Your task to perform on an android device: turn off location Image 0: 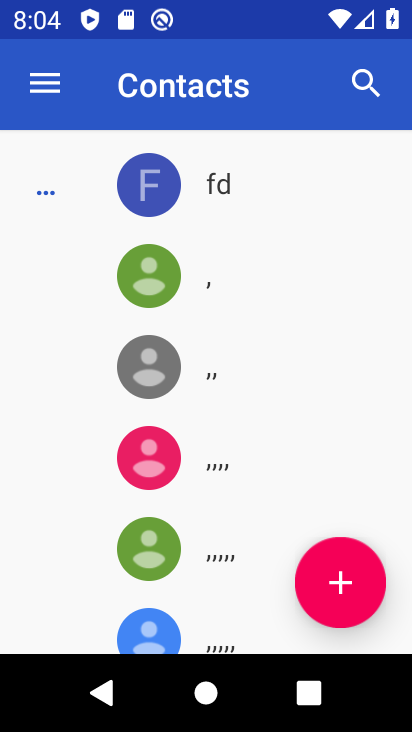
Step 0: press home button
Your task to perform on an android device: turn off location Image 1: 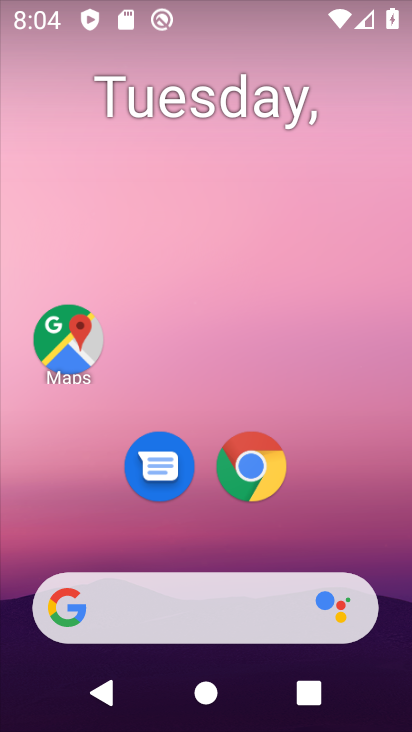
Step 1: drag from (216, 508) to (295, 1)
Your task to perform on an android device: turn off location Image 2: 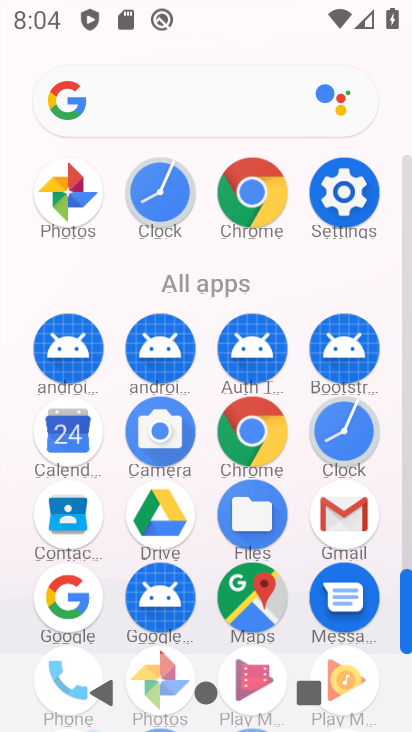
Step 2: click (348, 202)
Your task to perform on an android device: turn off location Image 3: 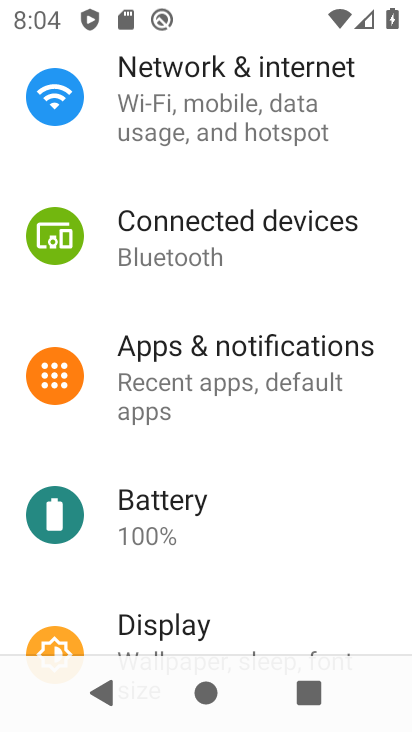
Step 3: drag from (213, 531) to (264, 220)
Your task to perform on an android device: turn off location Image 4: 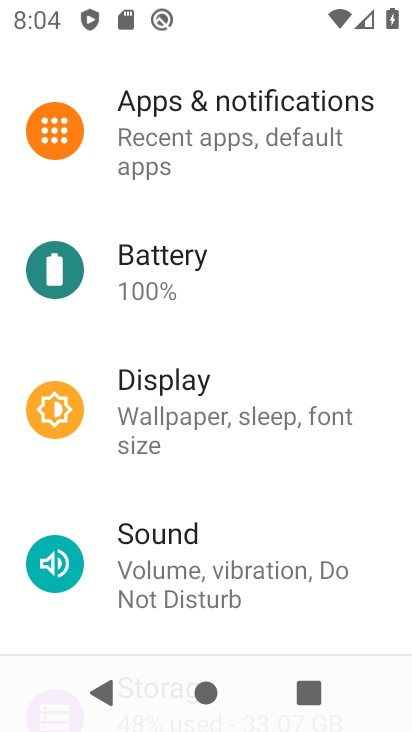
Step 4: drag from (213, 524) to (259, 220)
Your task to perform on an android device: turn off location Image 5: 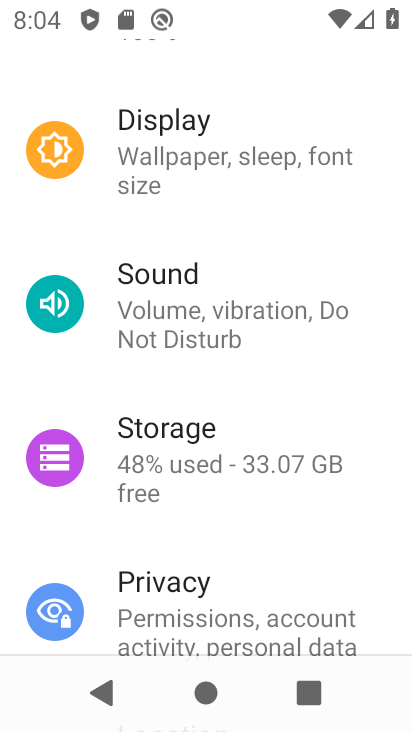
Step 5: drag from (177, 545) to (248, 145)
Your task to perform on an android device: turn off location Image 6: 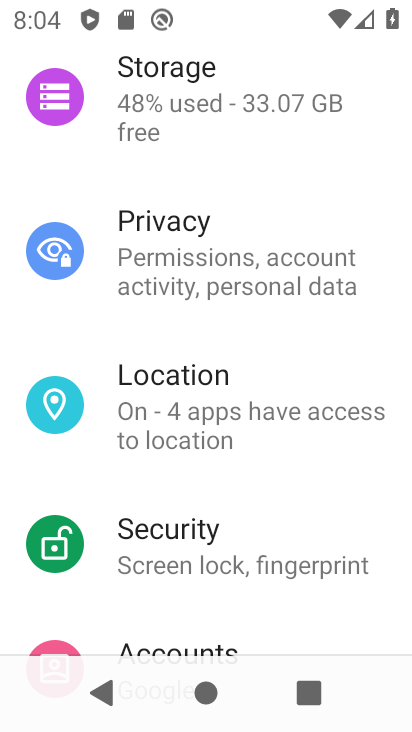
Step 6: click (217, 386)
Your task to perform on an android device: turn off location Image 7: 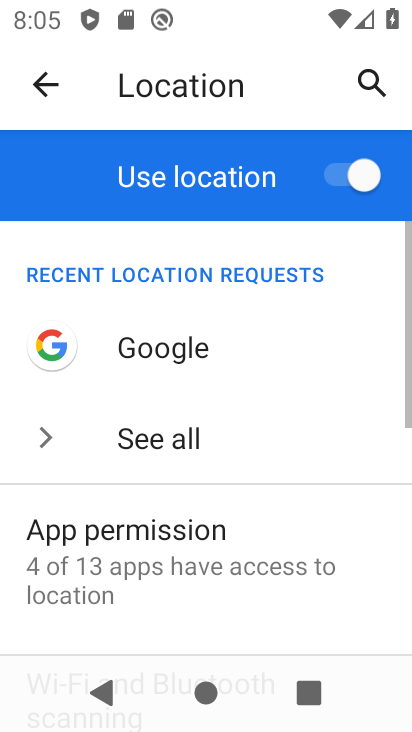
Step 7: click (317, 182)
Your task to perform on an android device: turn off location Image 8: 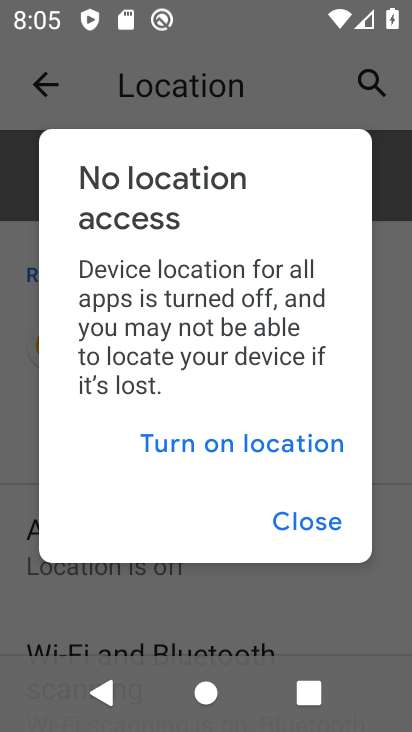
Step 8: click (336, 527)
Your task to perform on an android device: turn off location Image 9: 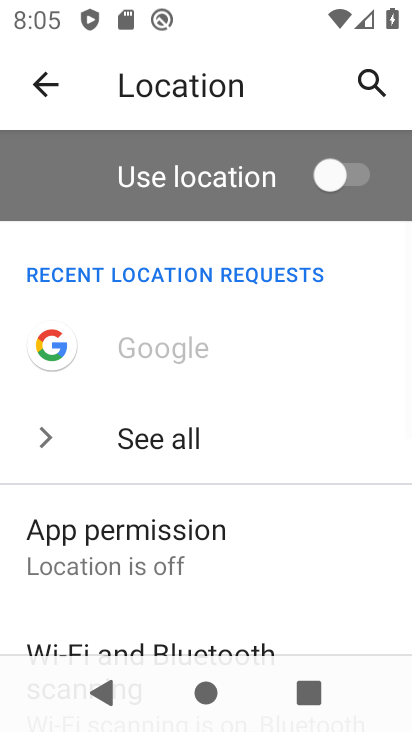
Step 9: task complete